Your task to perform on an android device: What's the news in India? Image 0: 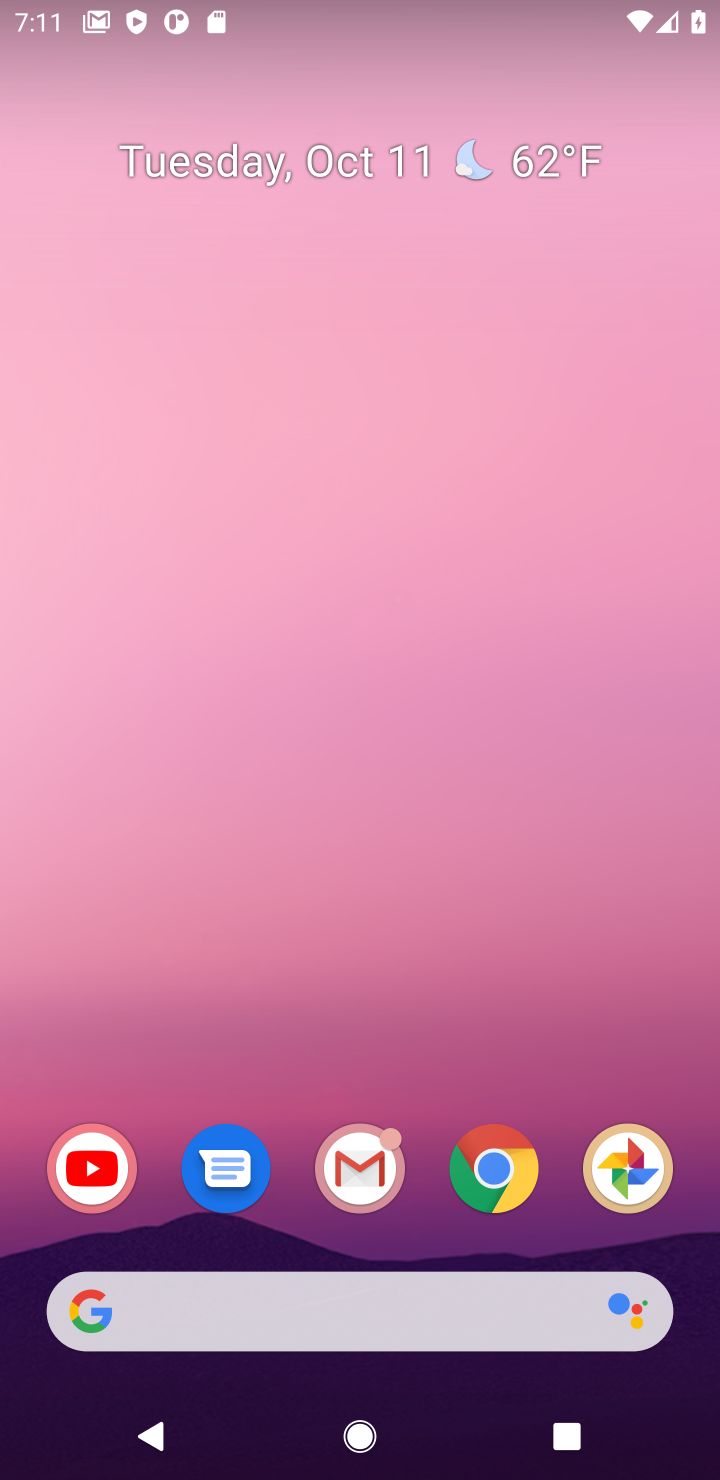
Step 0: click (482, 1153)
Your task to perform on an android device: What's the news in India? Image 1: 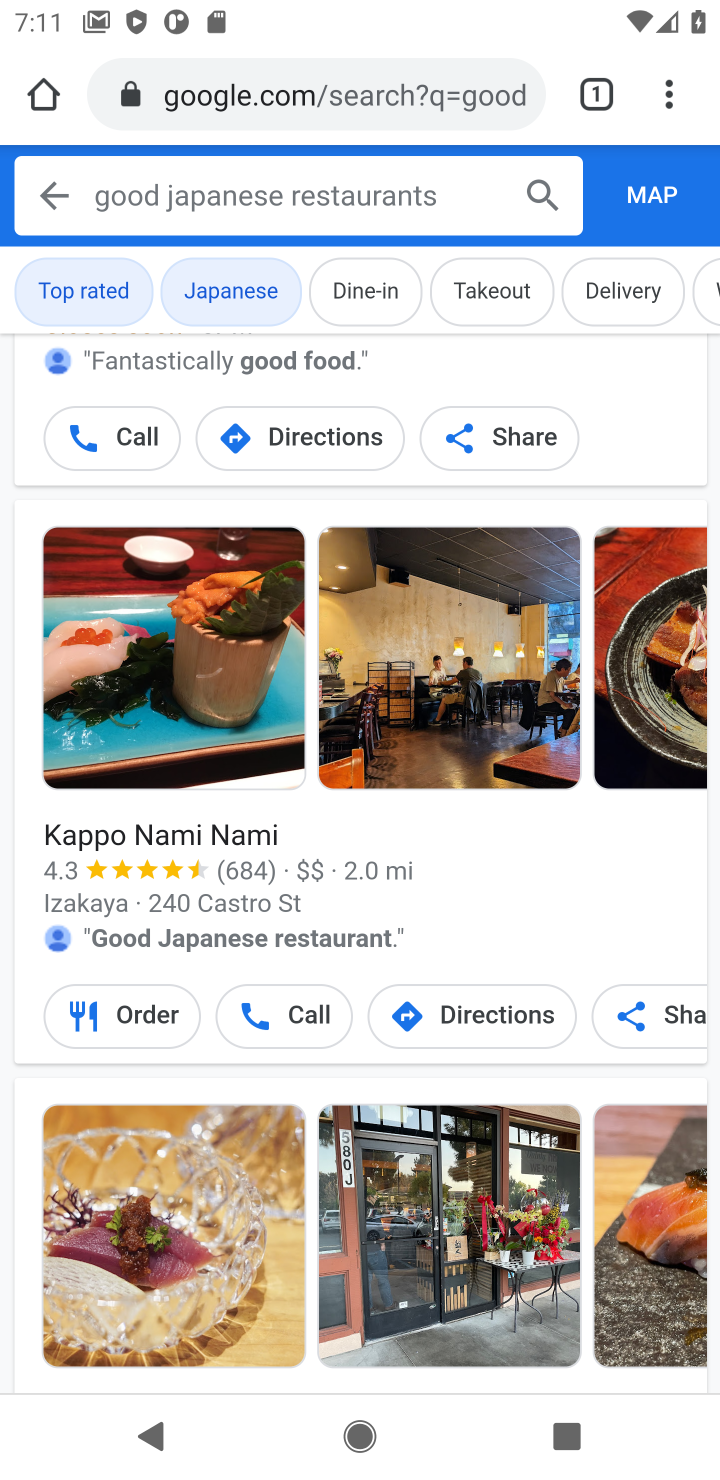
Step 1: click (319, 86)
Your task to perform on an android device: What's the news in India? Image 2: 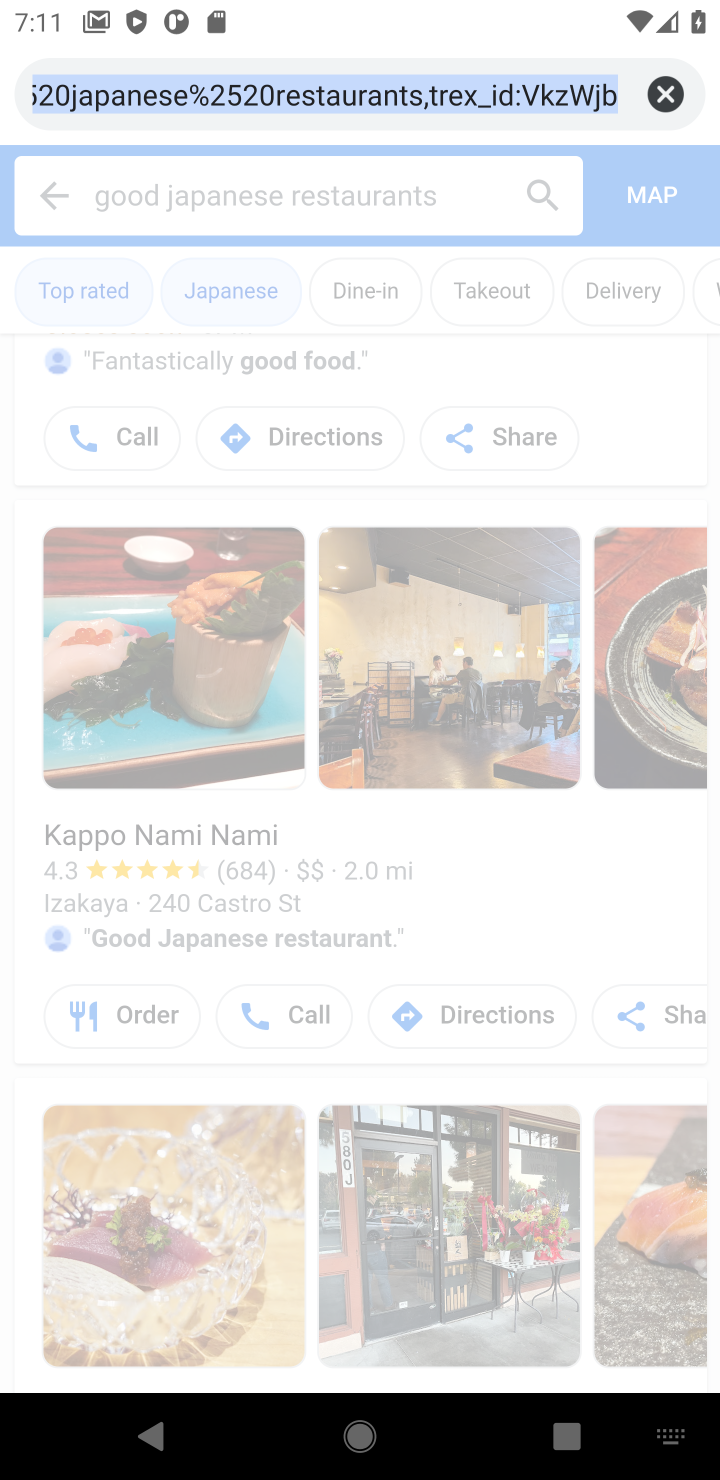
Step 2: click (664, 90)
Your task to perform on an android device: What's the news in India? Image 3: 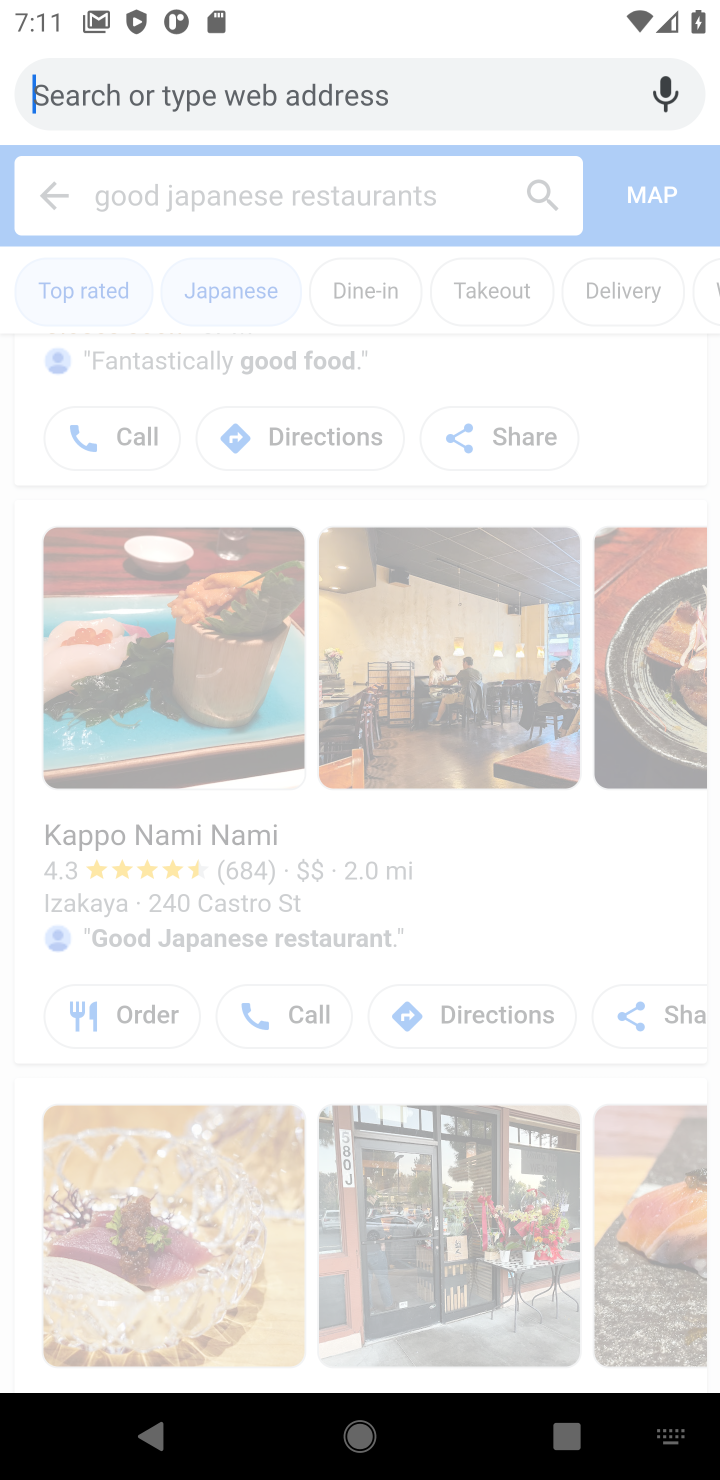
Step 3: type "news in india"
Your task to perform on an android device: What's the news in India? Image 4: 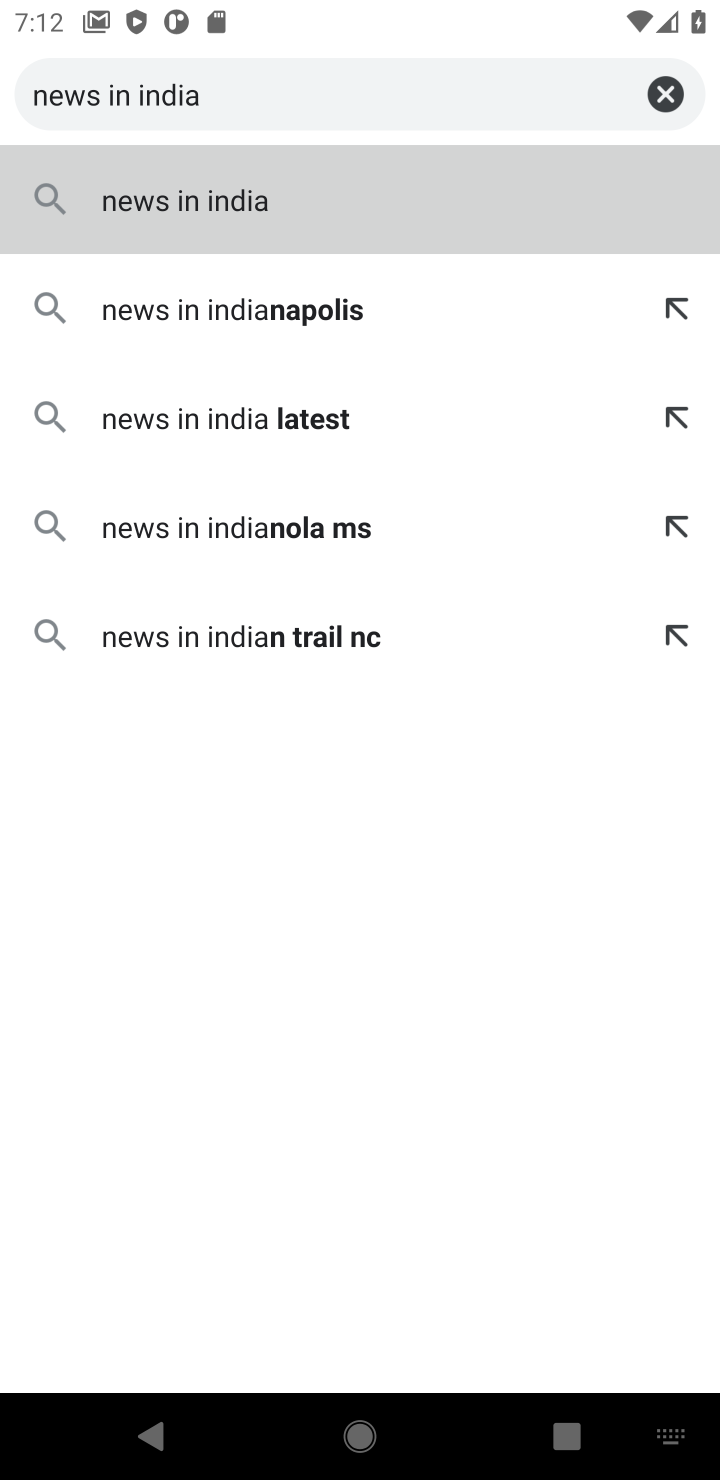
Step 4: type ""
Your task to perform on an android device: What's the news in India? Image 5: 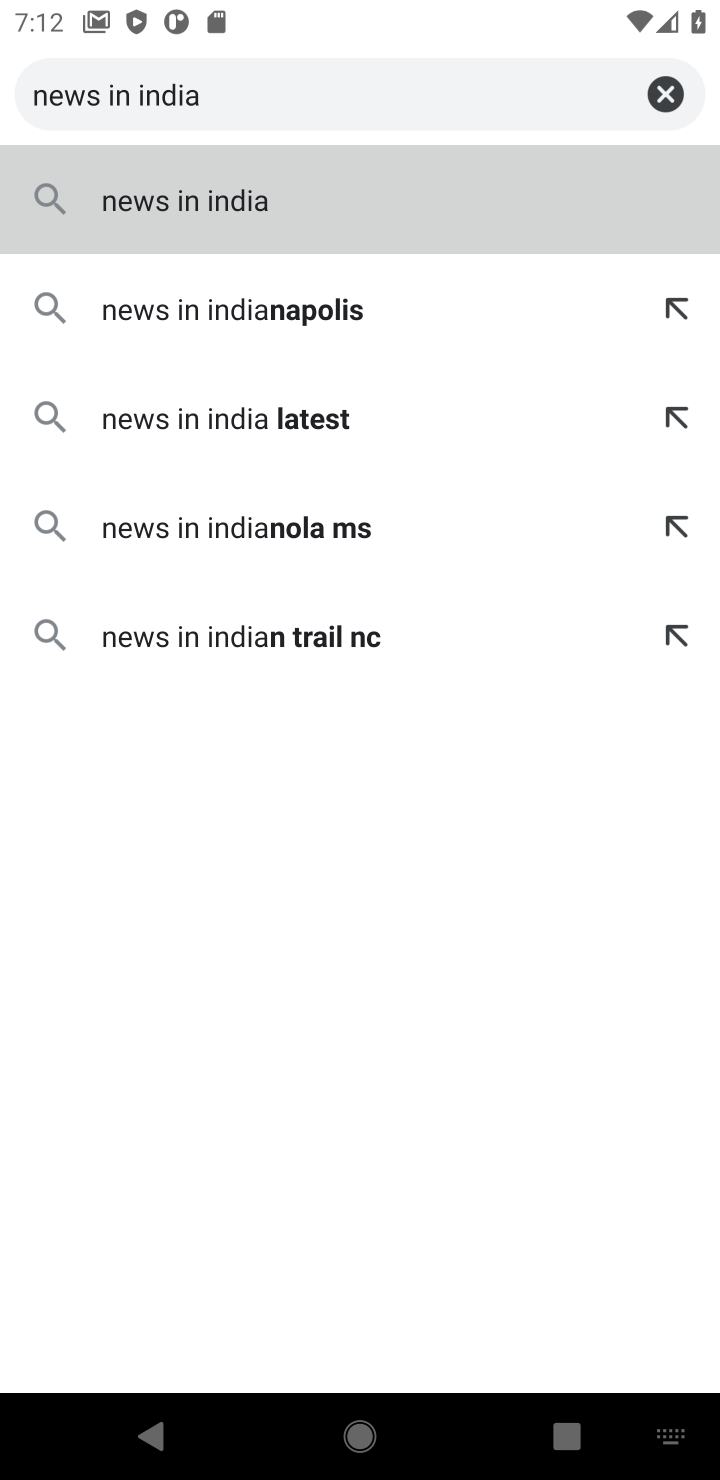
Step 5: click (207, 201)
Your task to perform on an android device: What's the news in India? Image 6: 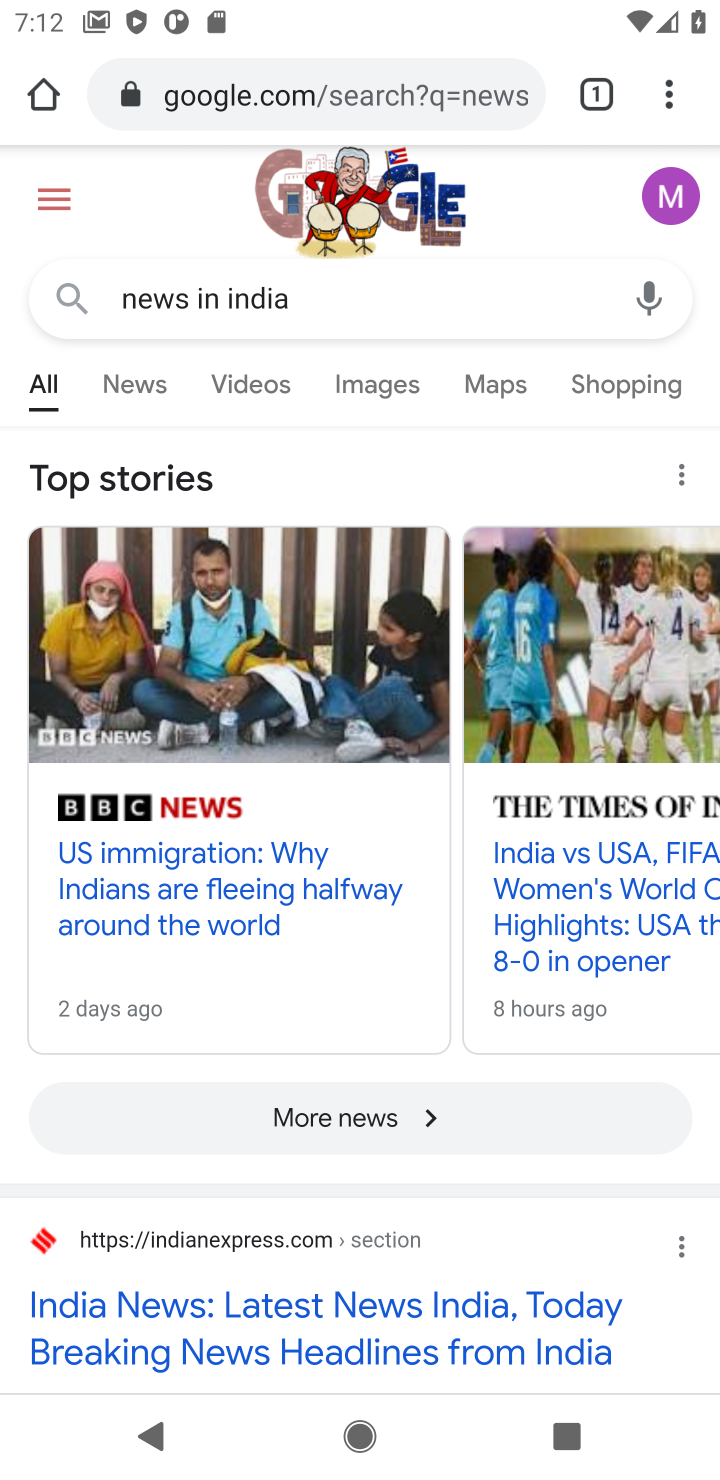
Step 6: drag from (358, 1044) to (419, 473)
Your task to perform on an android device: What's the news in India? Image 7: 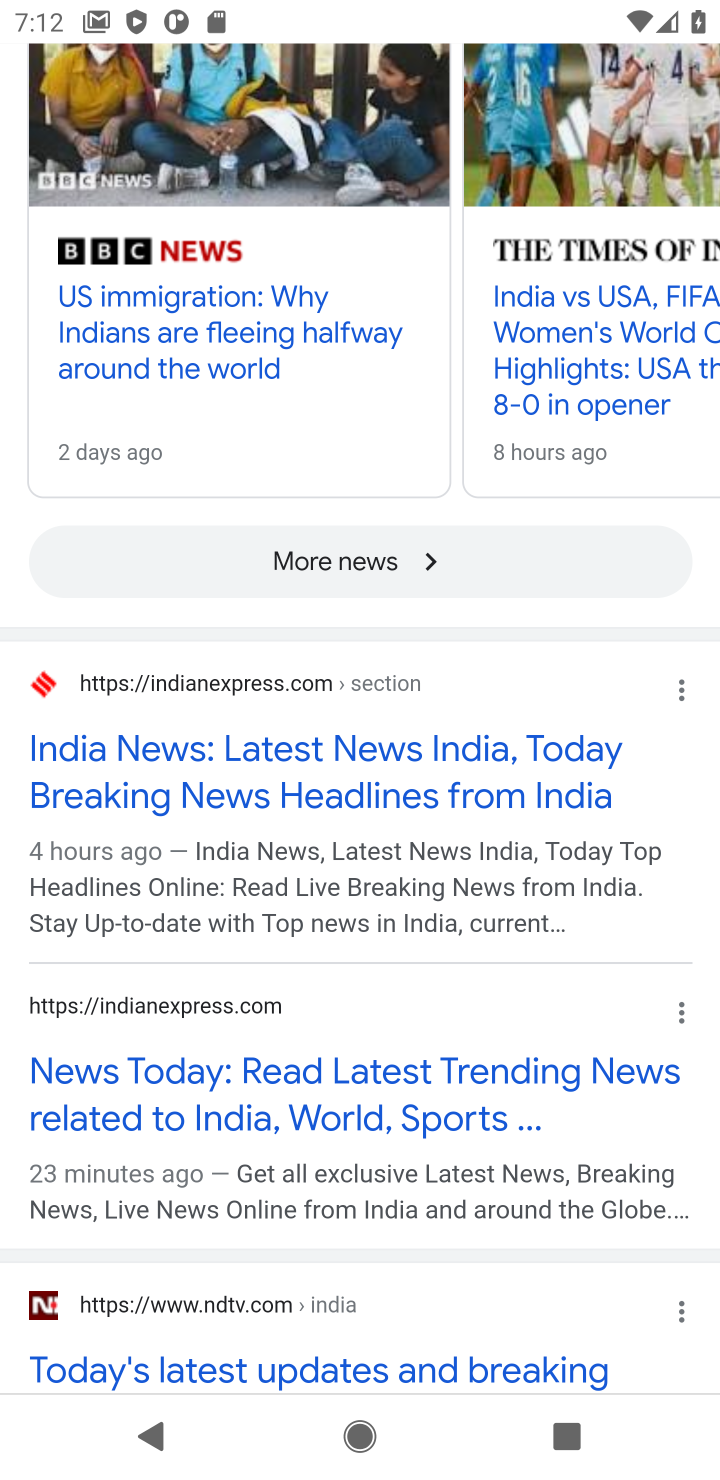
Step 7: click (292, 742)
Your task to perform on an android device: What's the news in India? Image 8: 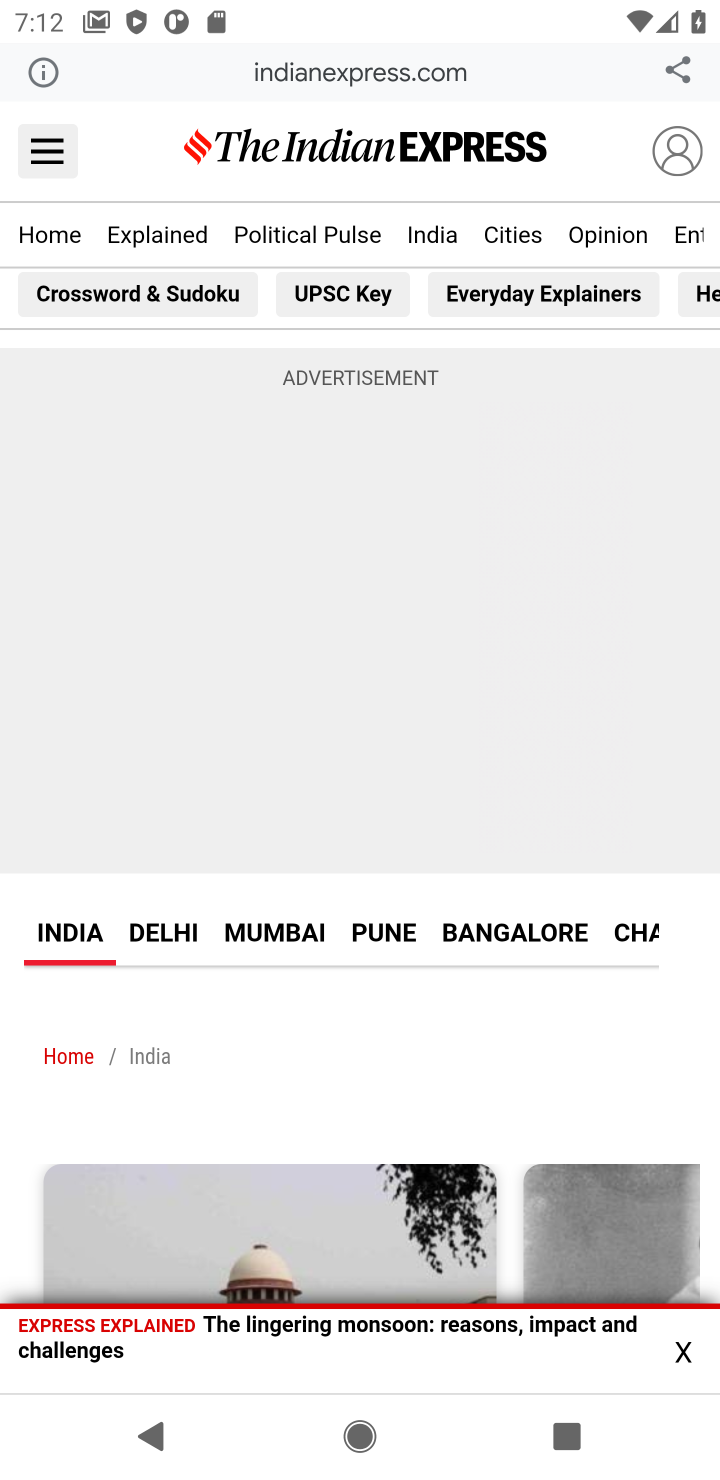
Step 8: drag from (416, 452) to (447, 281)
Your task to perform on an android device: What's the news in India? Image 9: 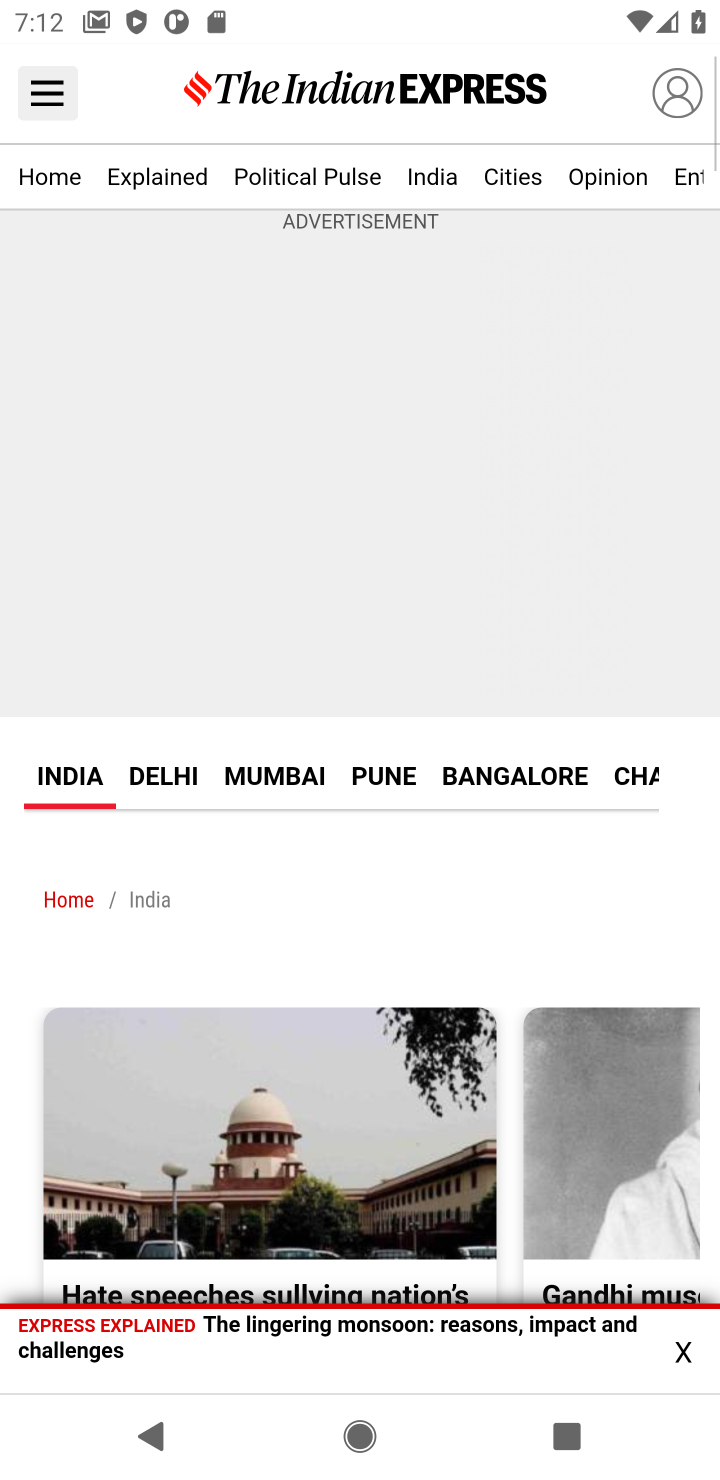
Step 9: drag from (364, 1042) to (453, 453)
Your task to perform on an android device: What's the news in India? Image 10: 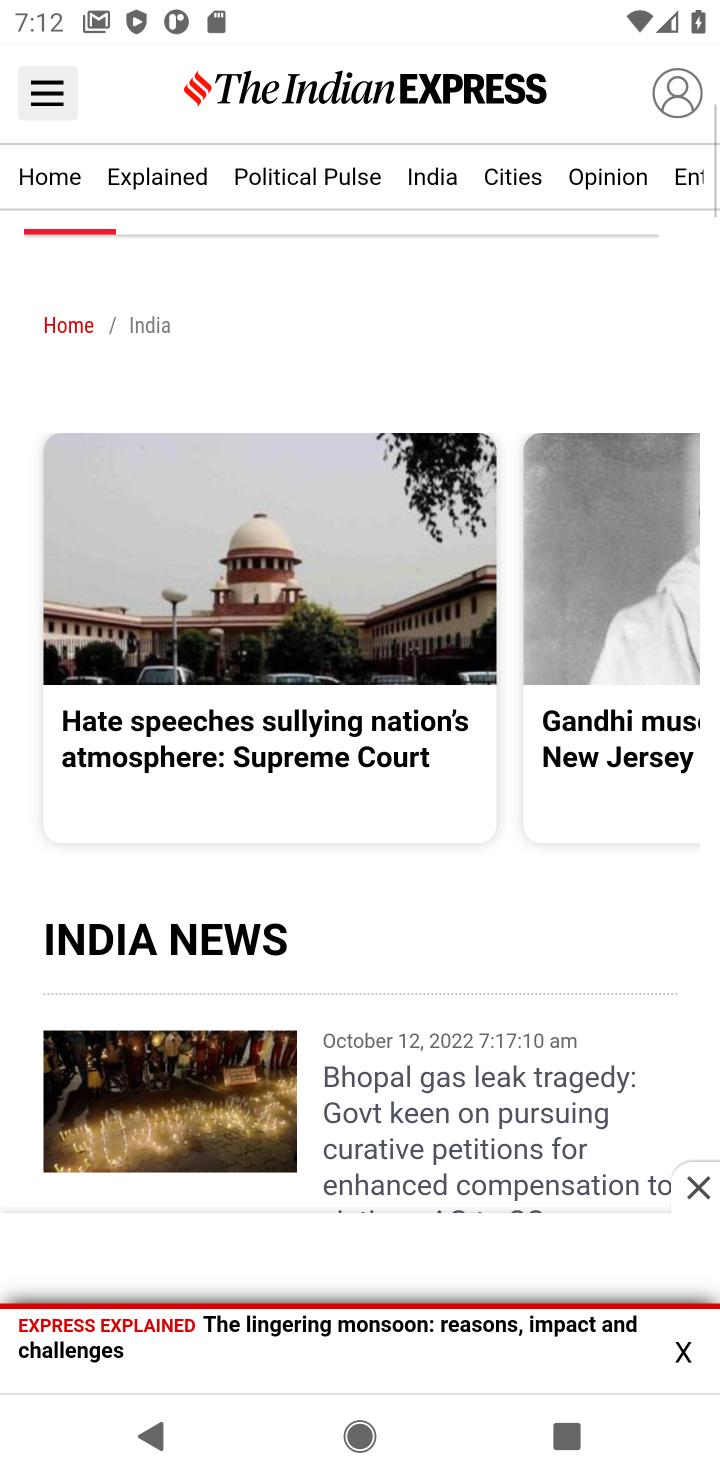
Step 10: drag from (306, 1048) to (436, 520)
Your task to perform on an android device: What's the news in India? Image 11: 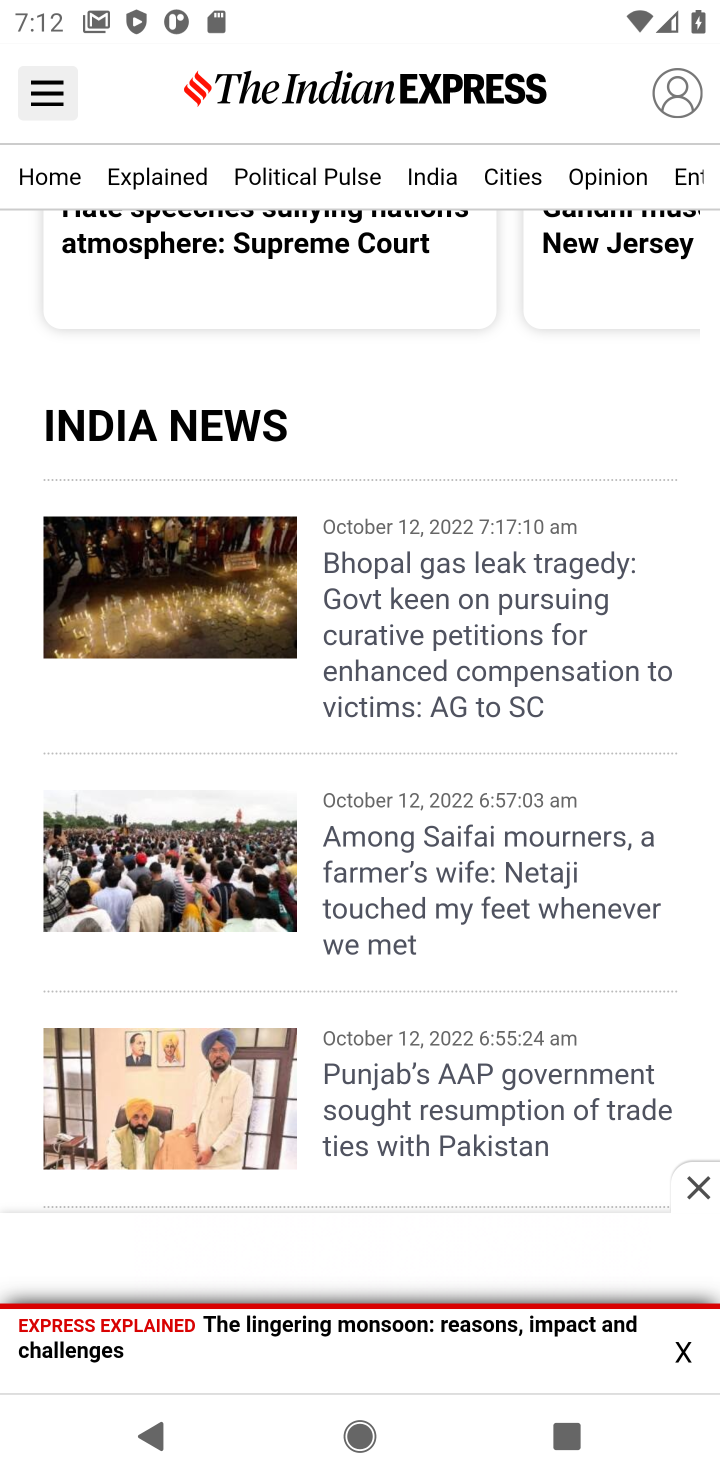
Step 11: click (699, 1188)
Your task to perform on an android device: What's the news in India? Image 12: 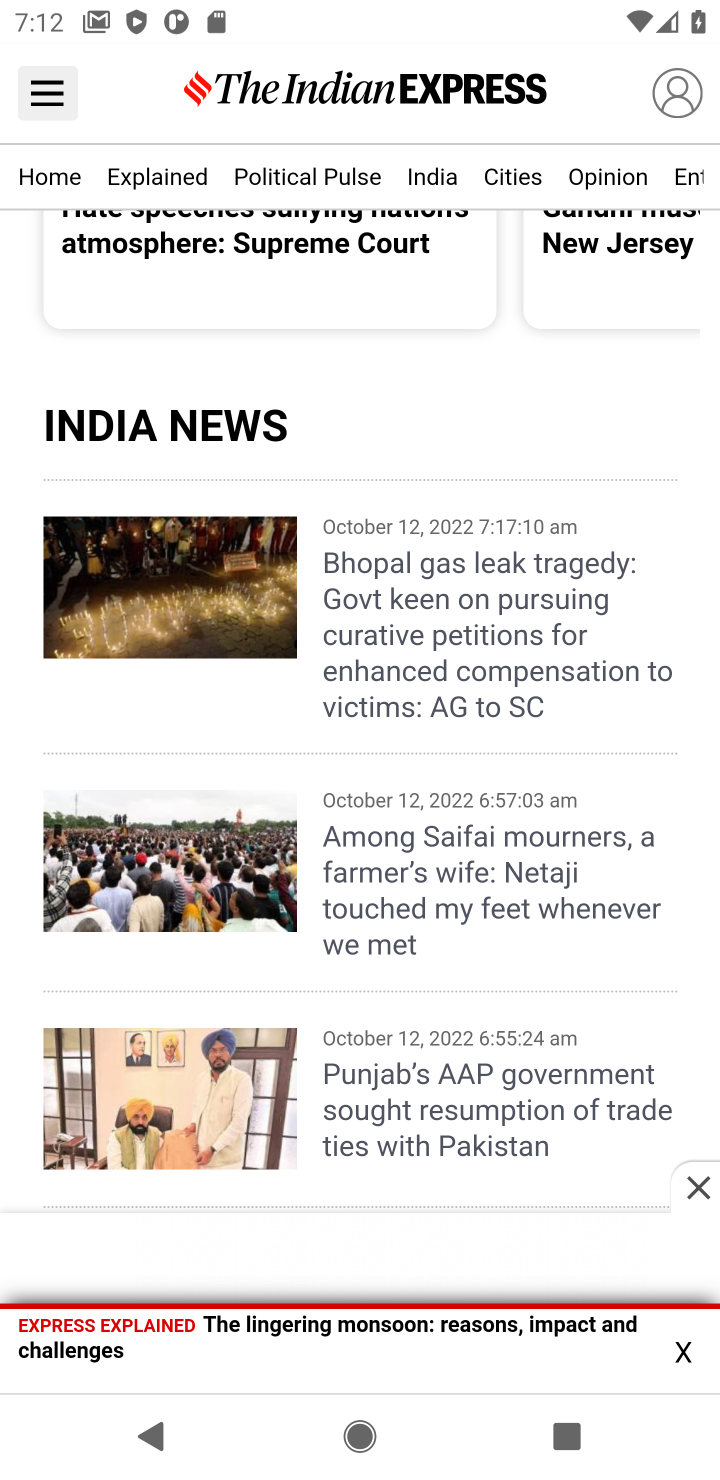
Step 12: drag from (203, 965) to (260, 625)
Your task to perform on an android device: What's the news in India? Image 13: 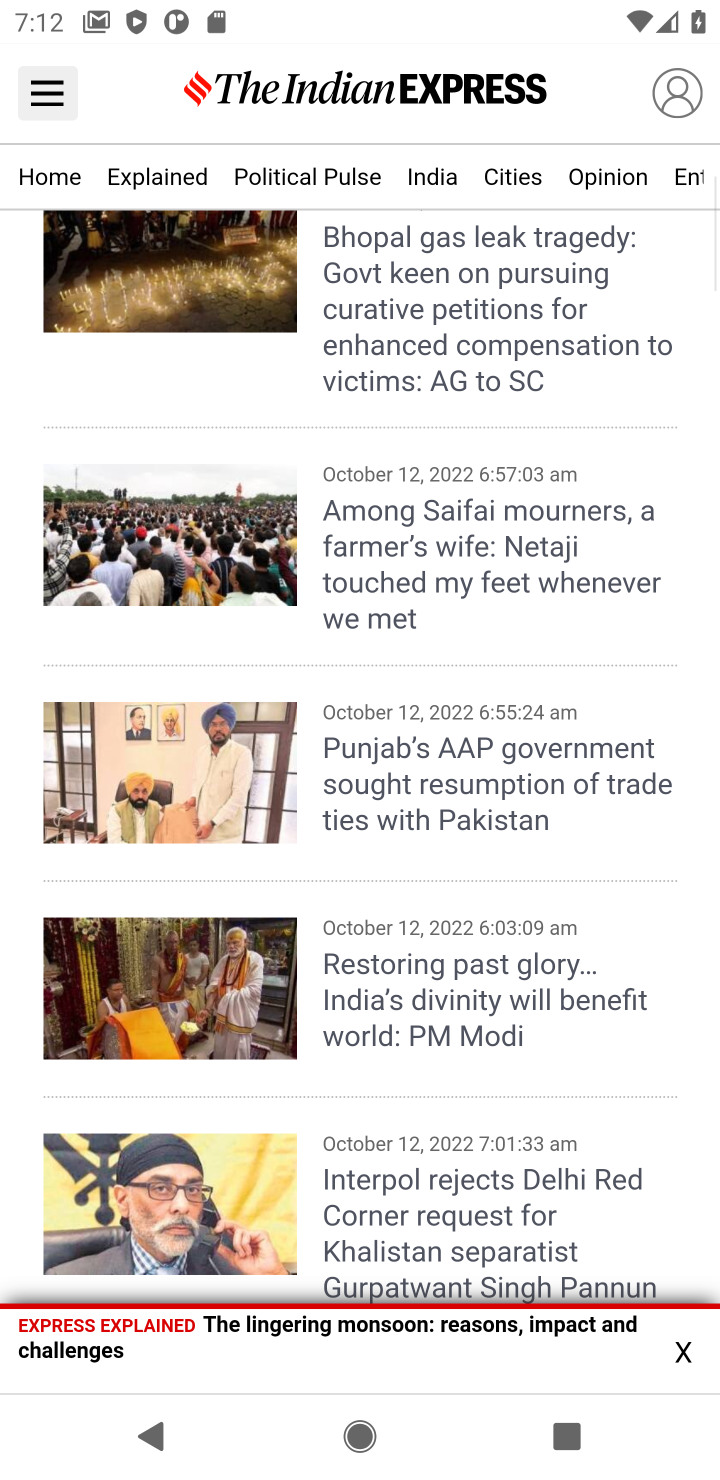
Step 13: click (678, 1350)
Your task to perform on an android device: What's the news in India? Image 14: 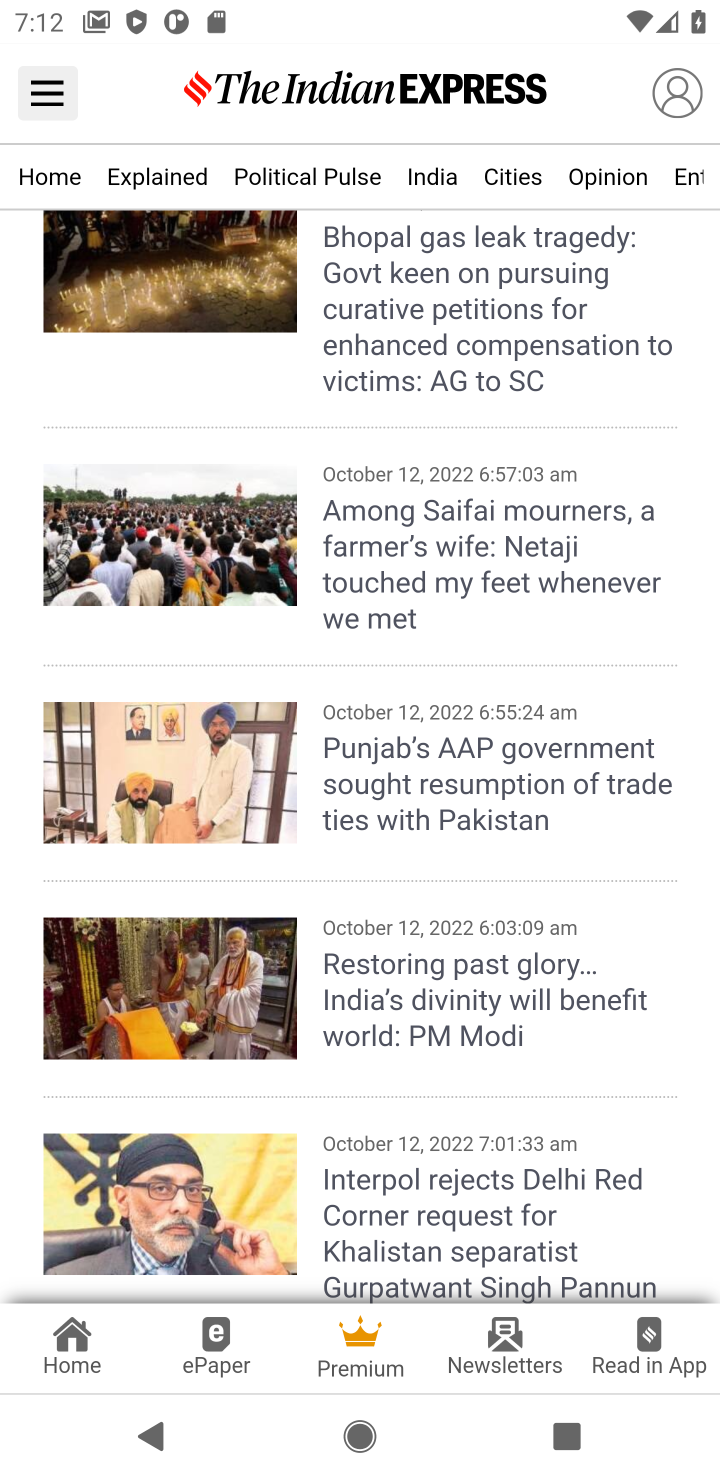
Step 14: drag from (518, 469) to (491, 880)
Your task to perform on an android device: What's the news in India? Image 15: 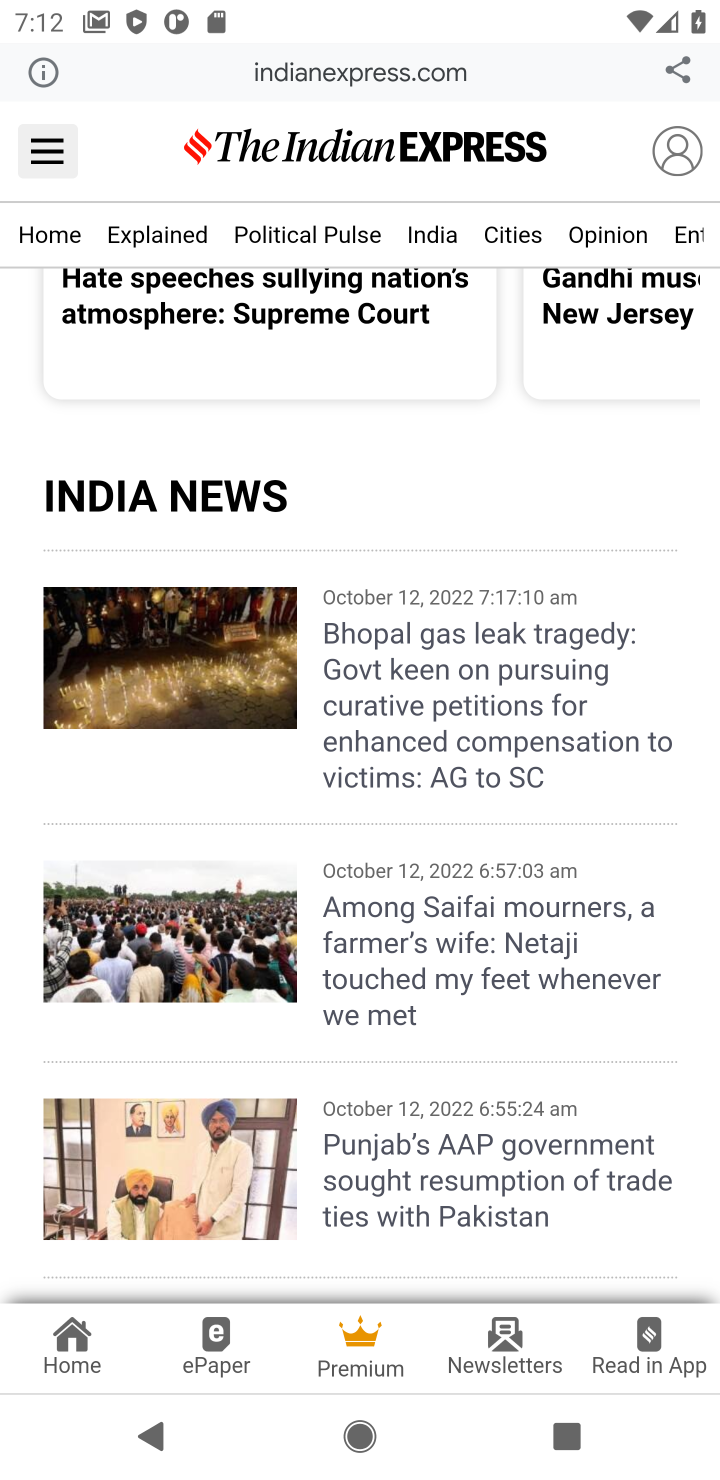
Step 15: click (366, 585)
Your task to perform on an android device: What's the news in India? Image 16: 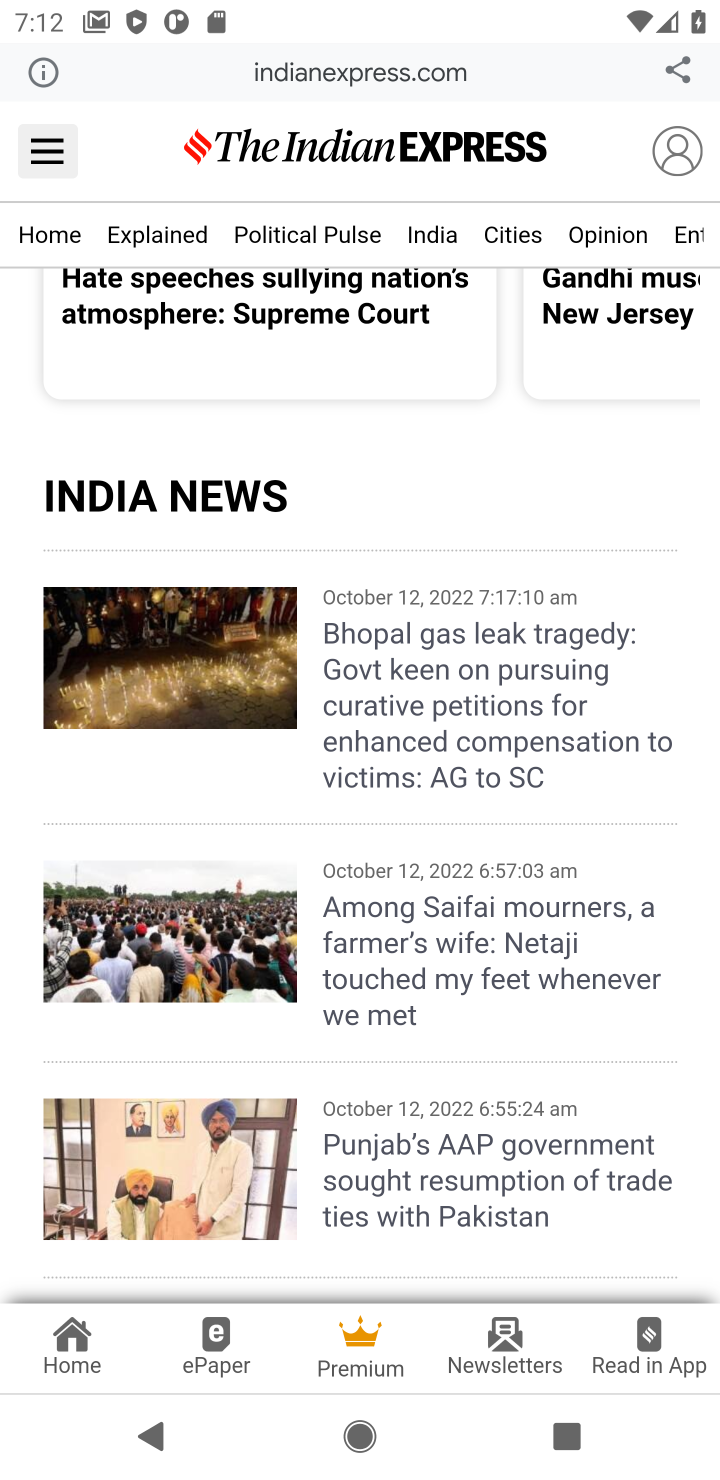
Step 16: click (215, 666)
Your task to perform on an android device: What's the news in India? Image 17: 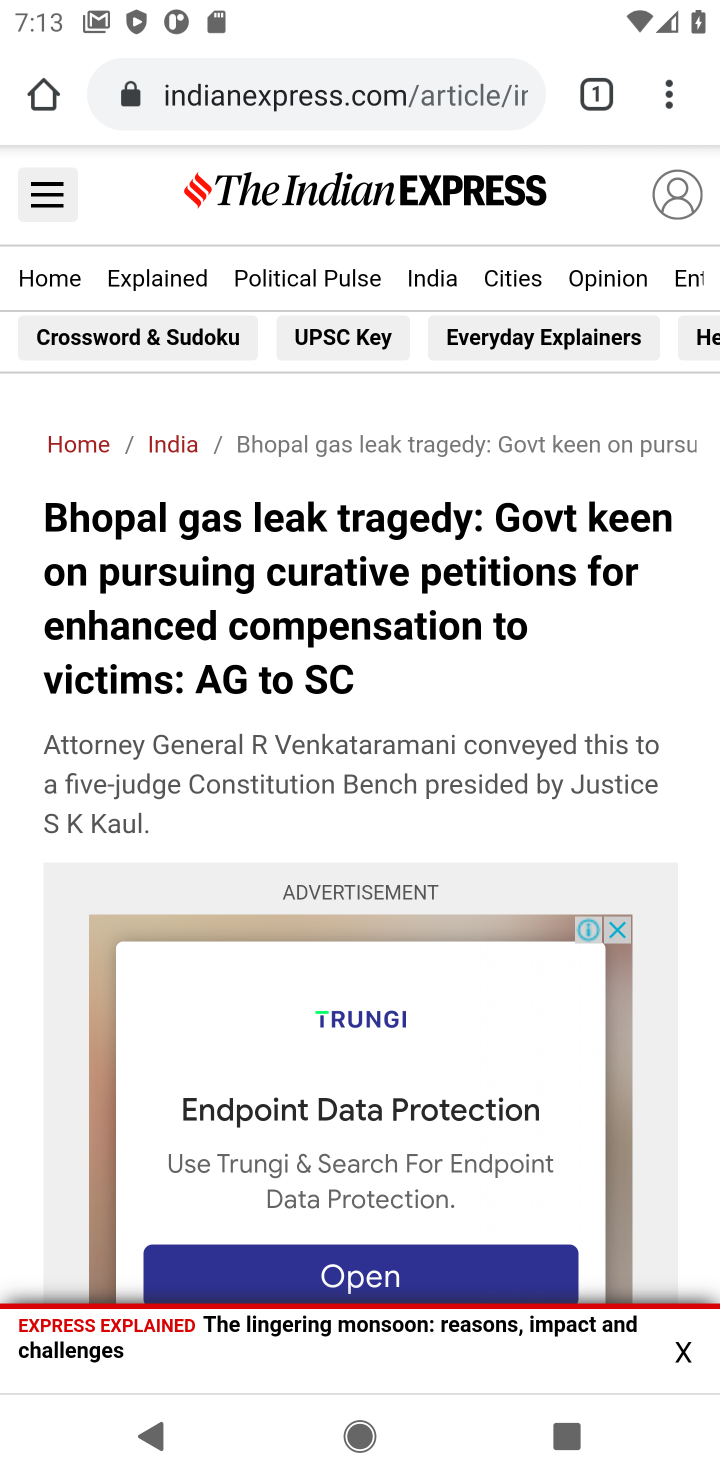
Step 17: drag from (428, 843) to (624, 378)
Your task to perform on an android device: What's the news in India? Image 18: 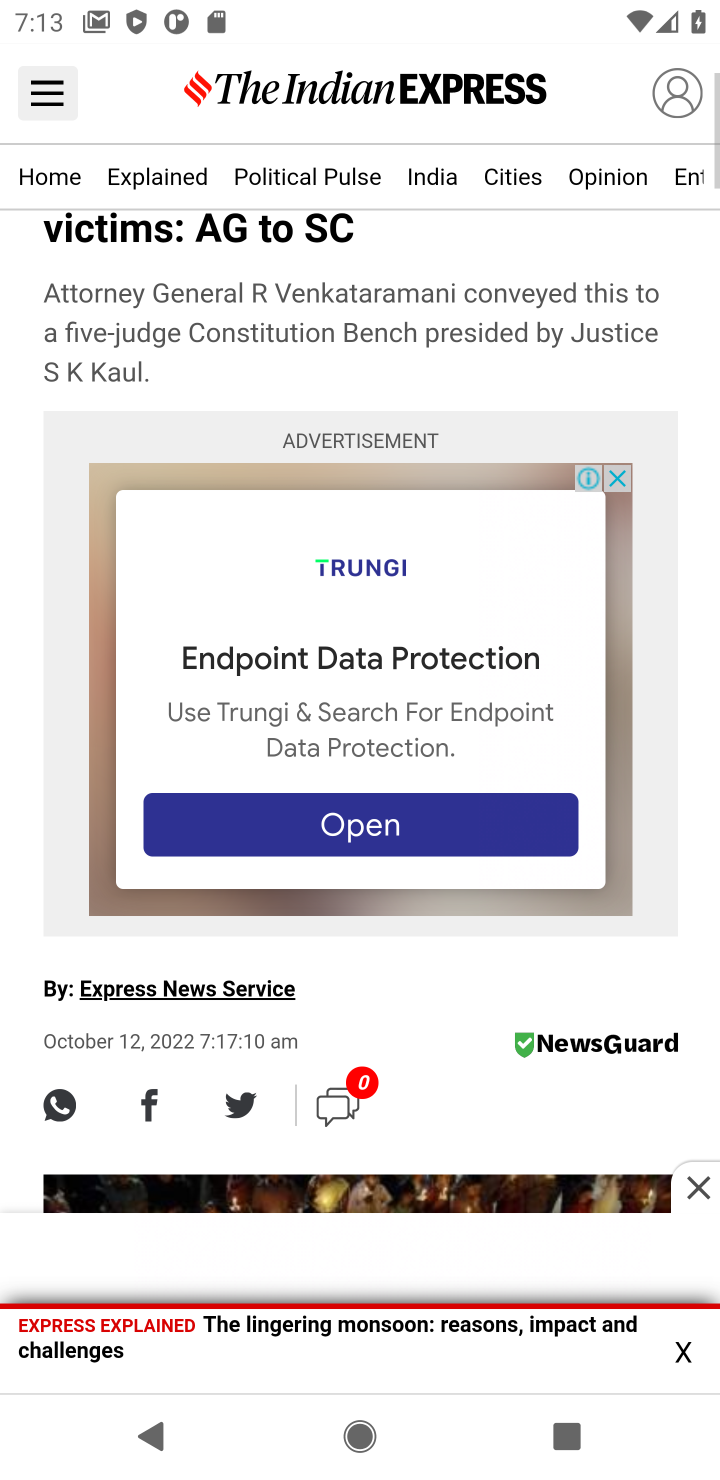
Step 18: drag from (428, 1024) to (526, 466)
Your task to perform on an android device: What's the news in India? Image 19: 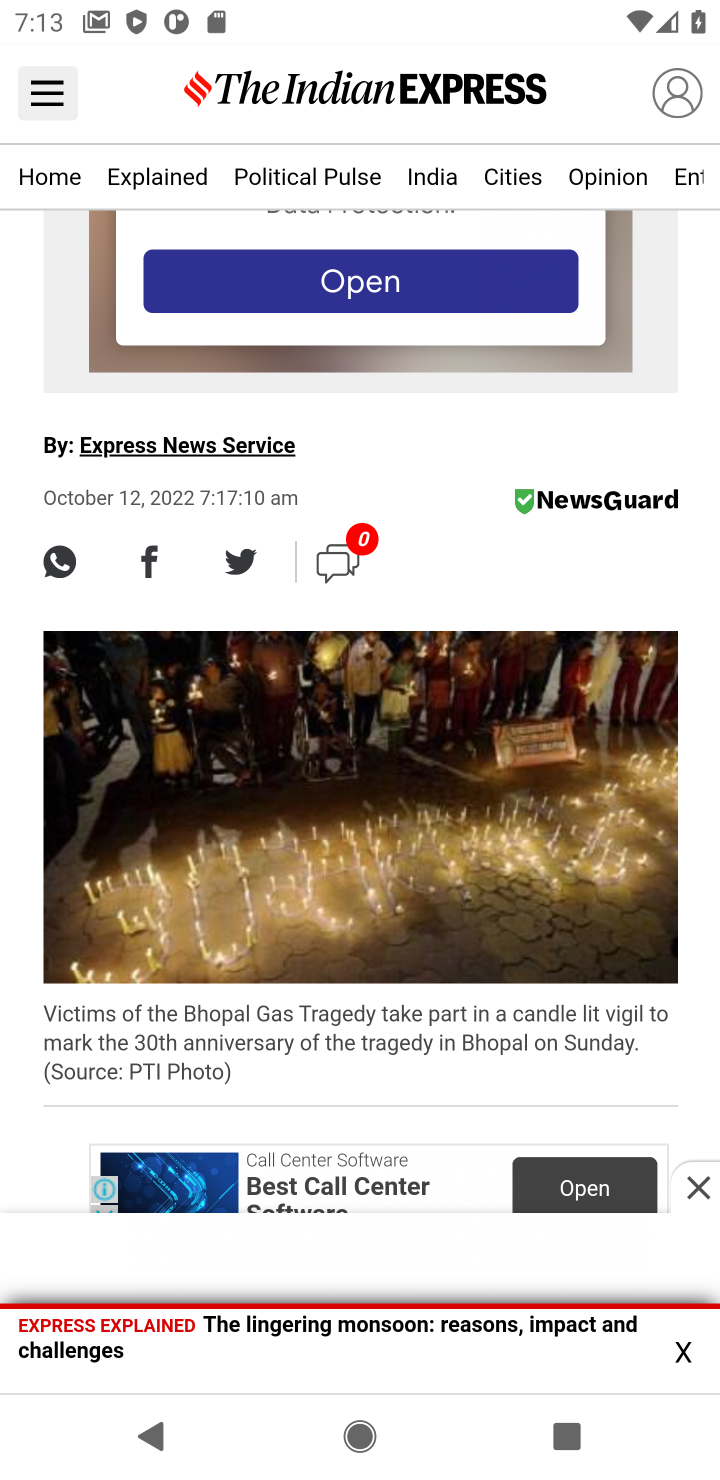
Step 19: click (702, 1195)
Your task to perform on an android device: What's the news in India? Image 20: 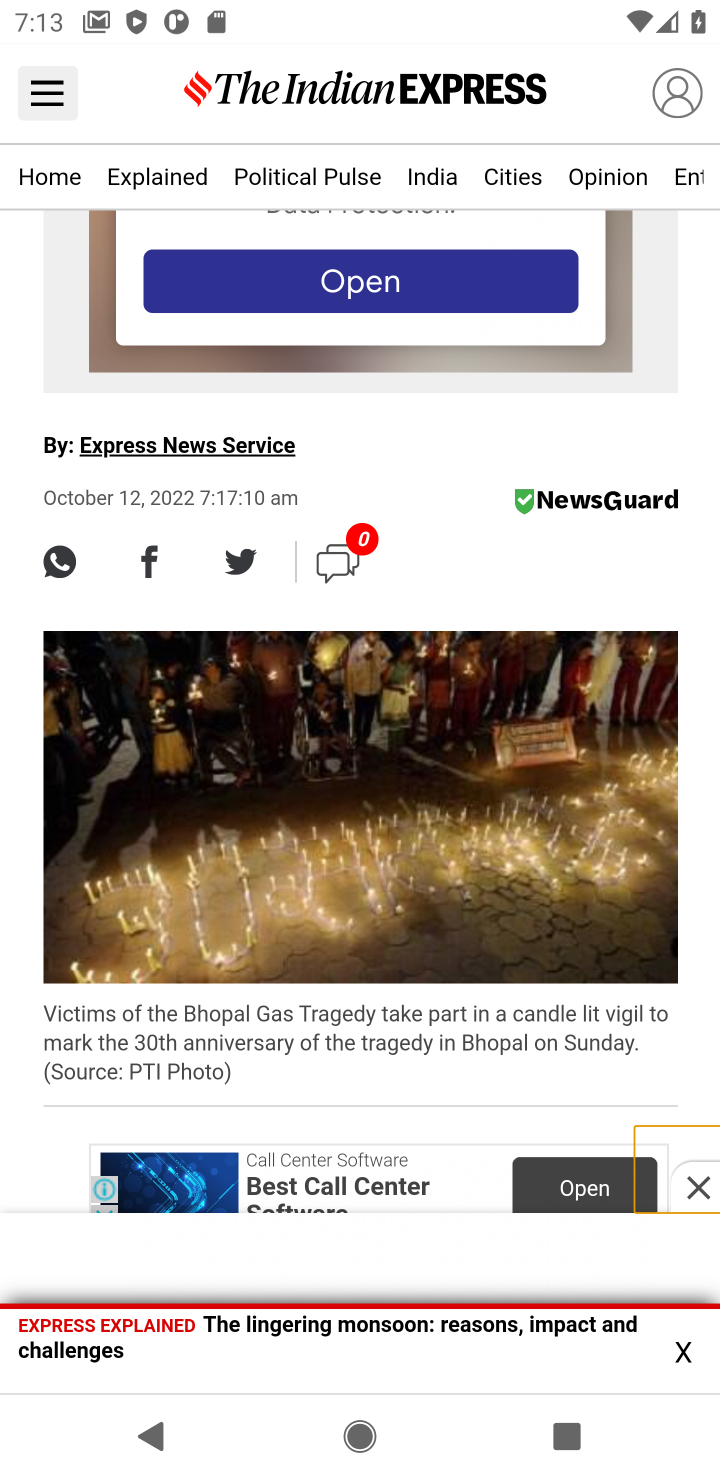
Step 20: task complete